Your task to perform on an android device: check data usage Image 0: 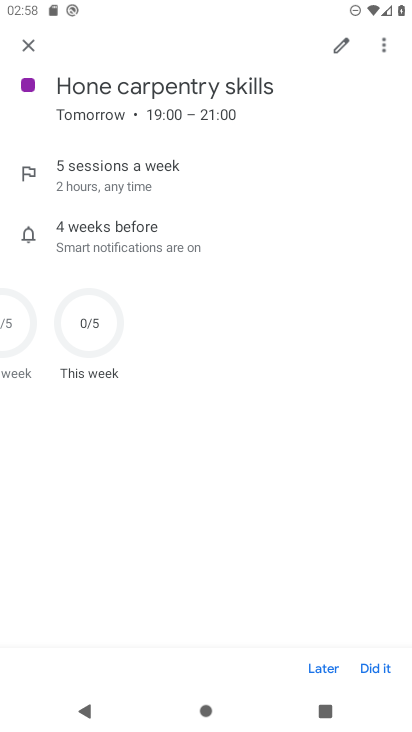
Step 0: press home button
Your task to perform on an android device: check data usage Image 1: 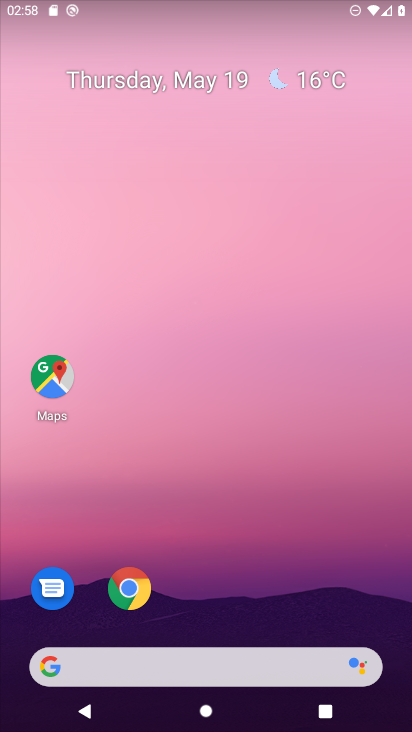
Step 1: drag from (233, 616) to (311, 5)
Your task to perform on an android device: check data usage Image 2: 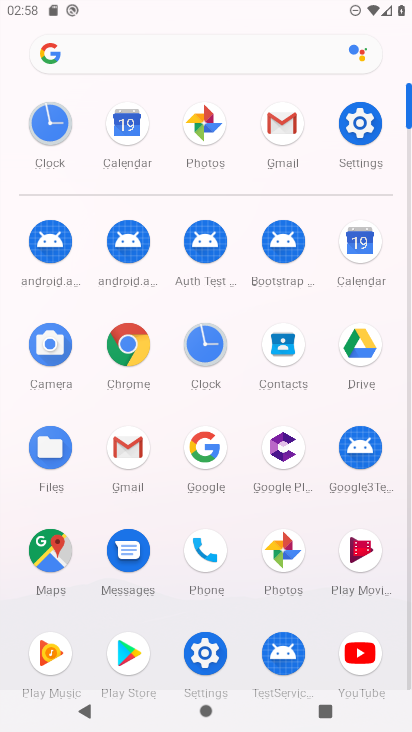
Step 2: click (358, 133)
Your task to perform on an android device: check data usage Image 3: 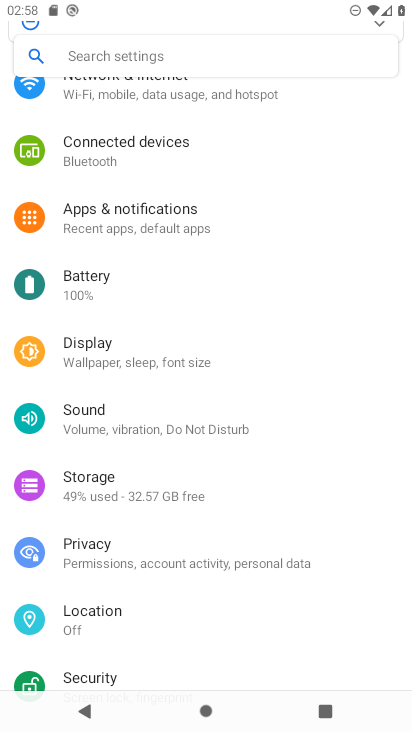
Step 3: drag from (335, 144) to (329, 368)
Your task to perform on an android device: check data usage Image 4: 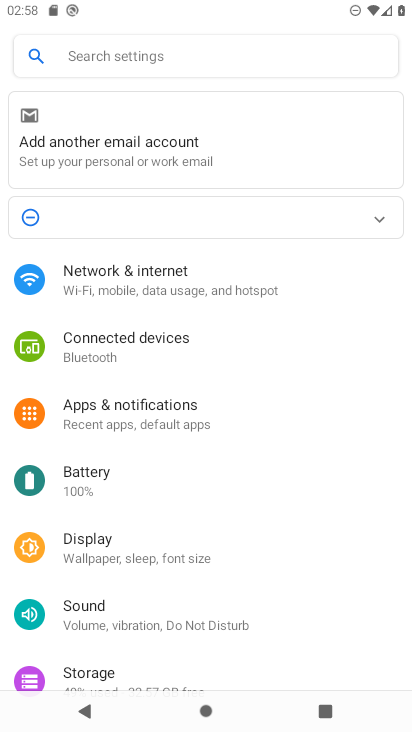
Step 4: click (159, 287)
Your task to perform on an android device: check data usage Image 5: 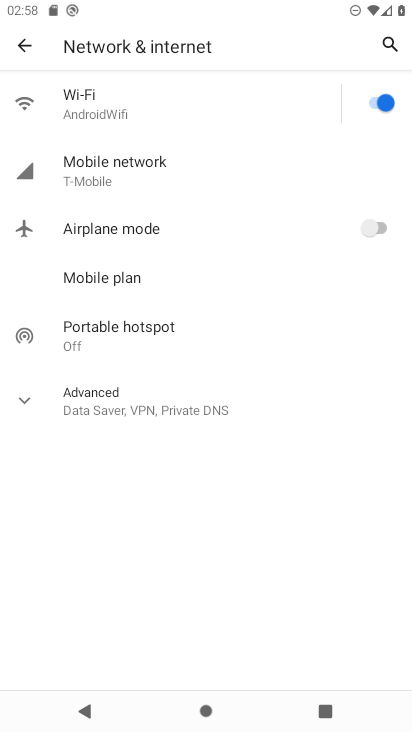
Step 5: click (86, 173)
Your task to perform on an android device: check data usage Image 6: 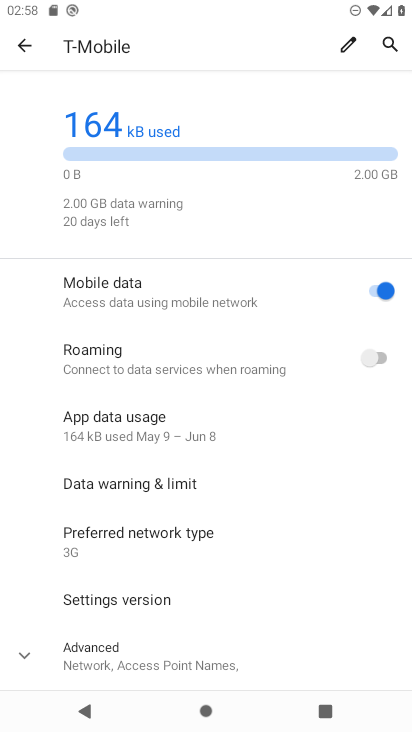
Step 6: drag from (199, 439) to (216, 208)
Your task to perform on an android device: check data usage Image 7: 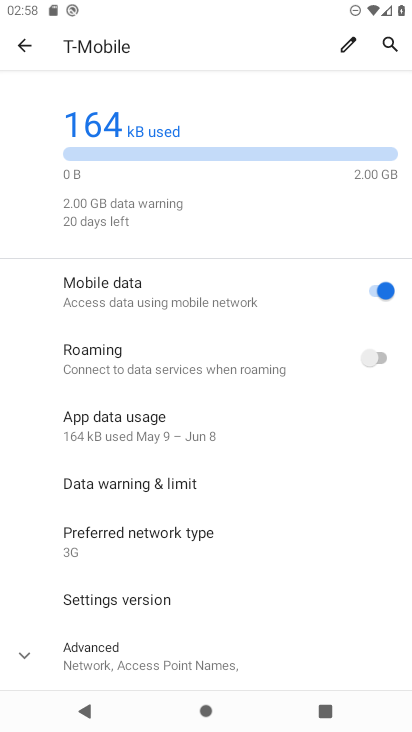
Step 7: click (95, 424)
Your task to perform on an android device: check data usage Image 8: 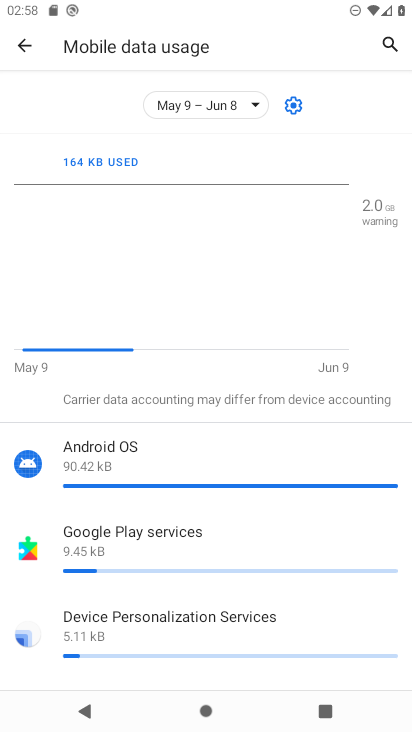
Step 8: task complete